Your task to perform on an android device: change the upload size in google photos Image 0: 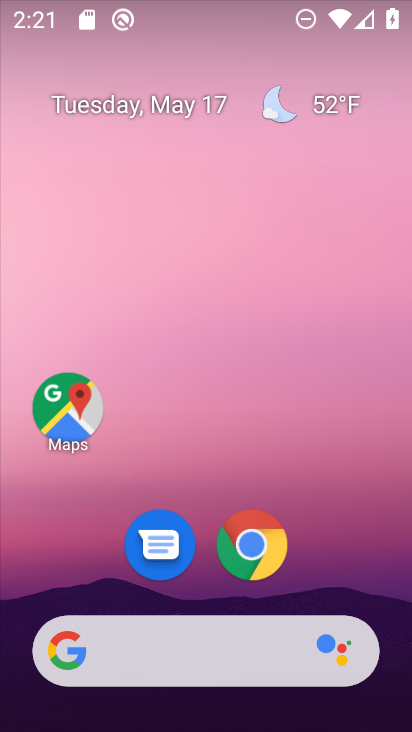
Step 0: drag from (354, 558) to (341, 199)
Your task to perform on an android device: change the upload size in google photos Image 1: 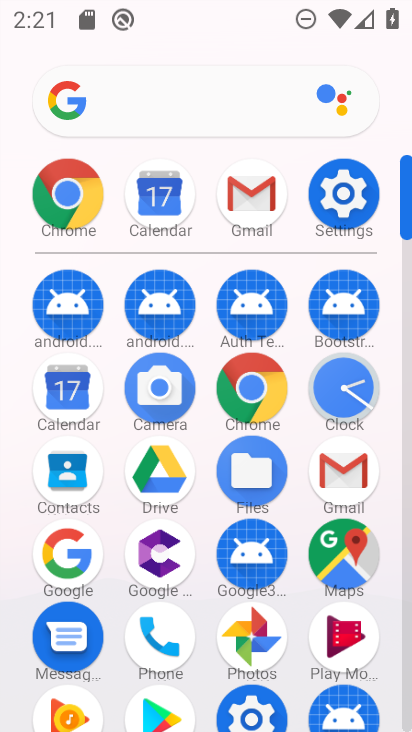
Step 1: click (270, 651)
Your task to perform on an android device: change the upload size in google photos Image 2: 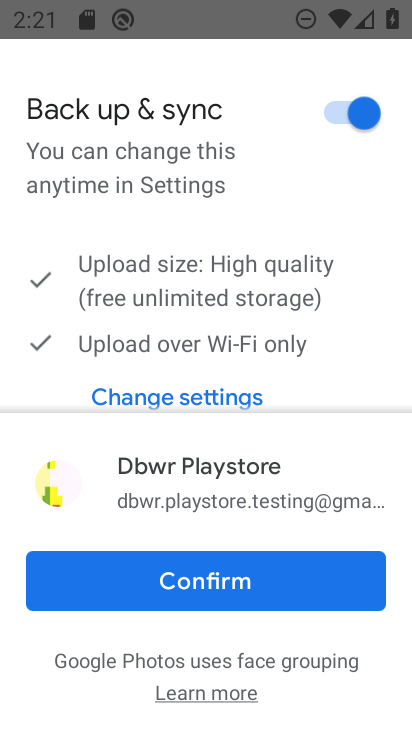
Step 2: click (284, 597)
Your task to perform on an android device: change the upload size in google photos Image 3: 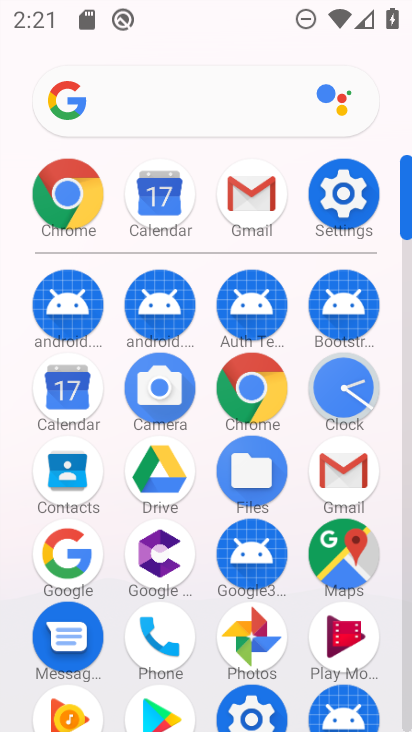
Step 3: click (276, 636)
Your task to perform on an android device: change the upload size in google photos Image 4: 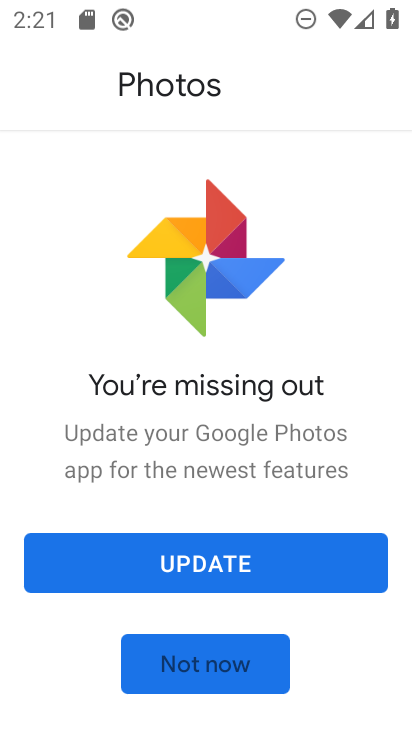
Step 4: click (293, 570)
Your task to perform on an android device: change the upload size in google photos Image 5: 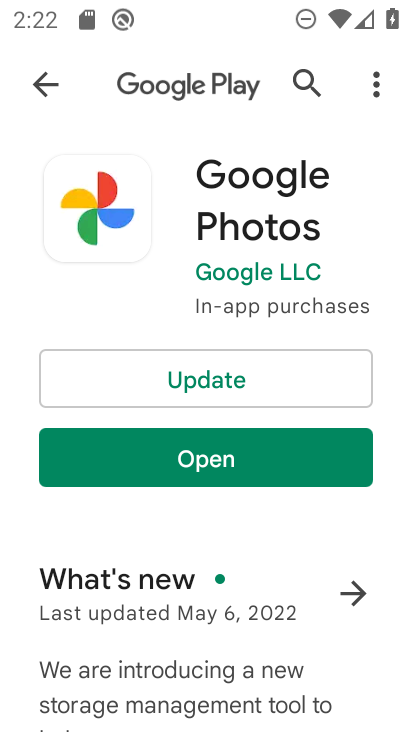
Step 5: click (236, 366)
Your task to perform on an android device: change the upload size in google photos Image 6: 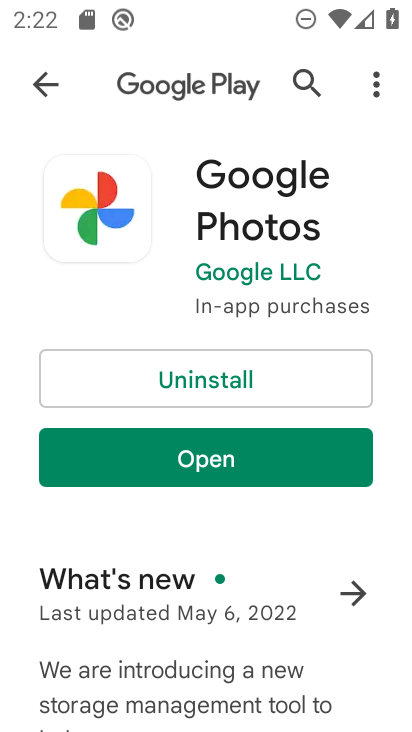
Step 6: click (227, 466)
Your task to perform on an android device: change the upload size in google photos Image 7: 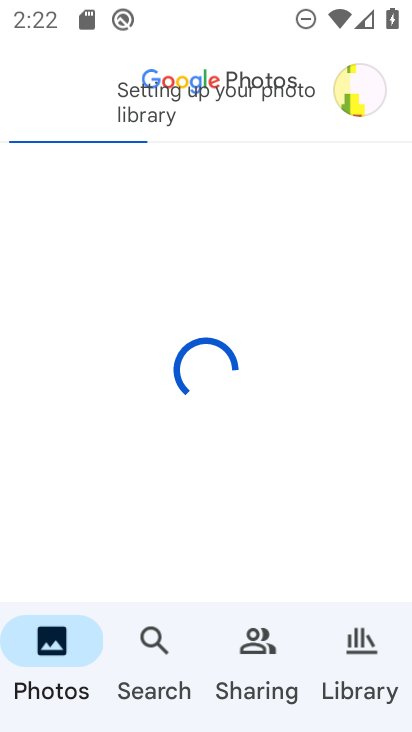
Step 7: click (375, 80)
Your task to perform on an android device: change the upload size in google photos Image 8: 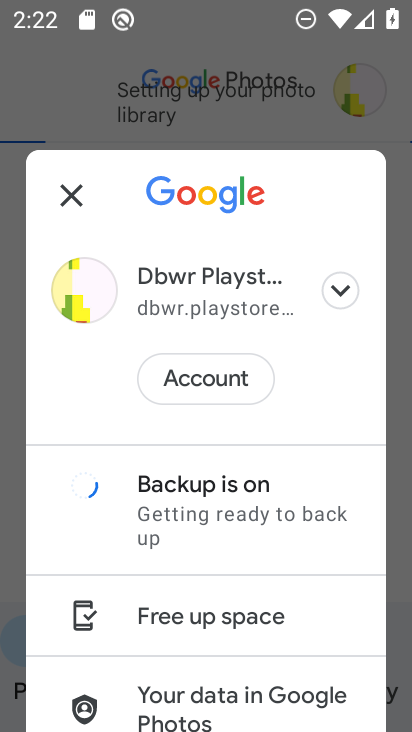
Step 8: drag from (284, 573) to (281, 407)
Your task to perform on an android device: change the upload size in google photos Image 9: 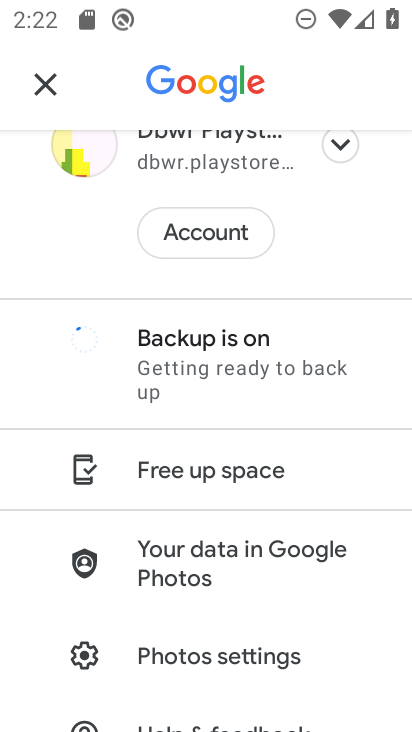
Step 9: click (245, 657)
Your task to perform on an android device: change the upload size in google photos Image 10: 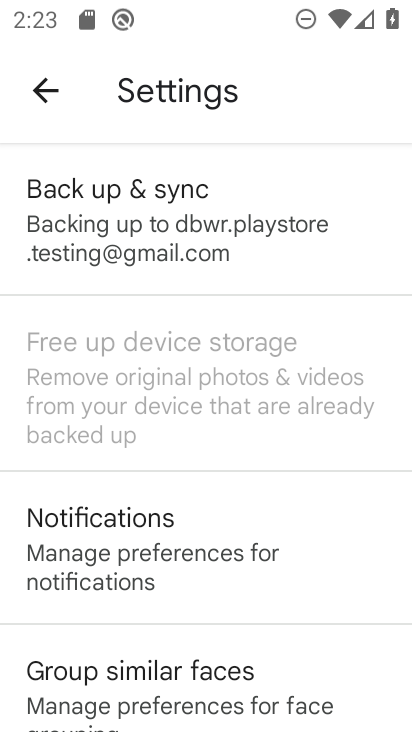
Step 10: click (196, 224)
Your task to perform on an android device: change the upload size in google photos Image 11: 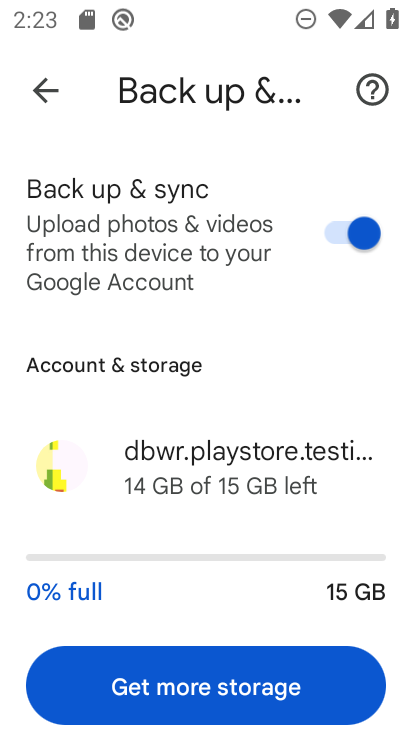
Step 11: drag from (217, 562) to (240, 399)
Your task to perform on an android device: change the upload size in google photos Image 12: 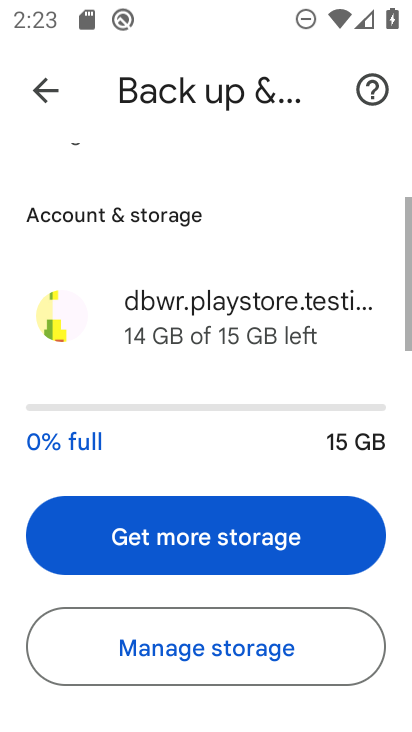
Step 12: drag from (223, 558) to (249, 393)
Your task to perform on an android device: change the upload size in google photos Image 13: 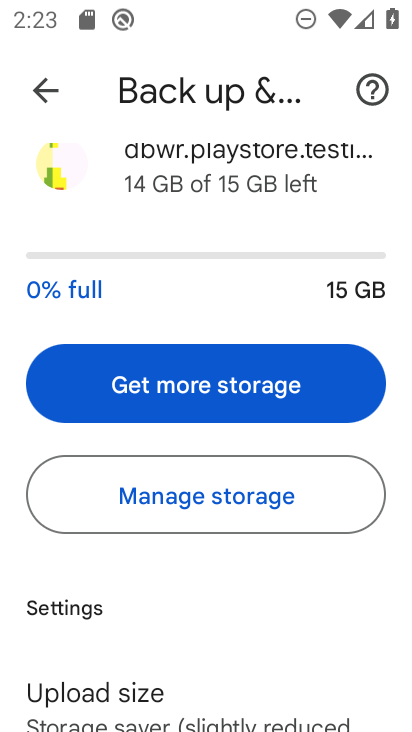
Step 13: drag from (206, 659) to (238, 450)
Your task to perform on an android device: change the upload size in google photos Image 14: 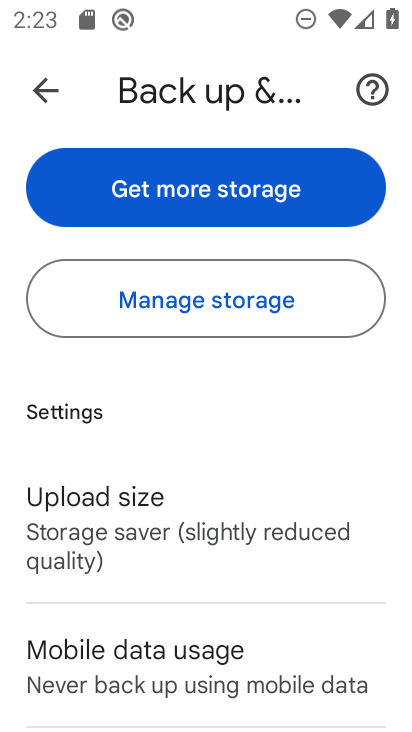
Step 14: click (219, 538)
Your task to perform on an android device: change the upload size in google photos Image 15: 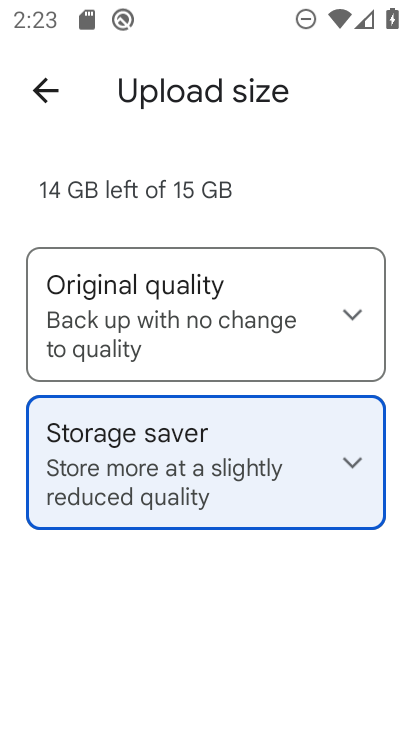
Step 15: click (203, 316)
Your task to perform on an android device: change the upload size in google photos Image 16: 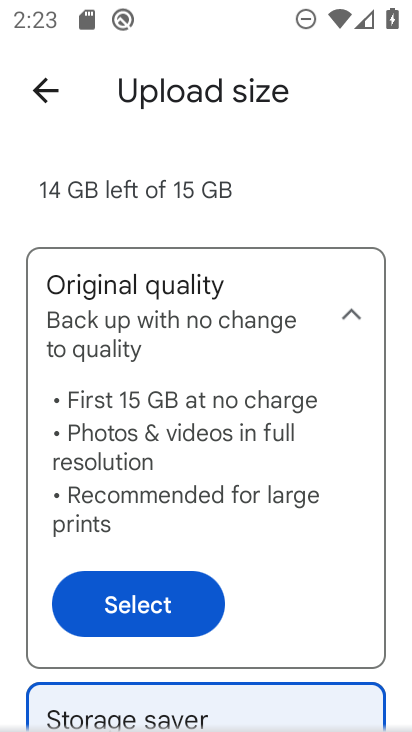
Step 16: click (157, 624)
Your task to perform on an android device: change the upload size in google photos Image 17: 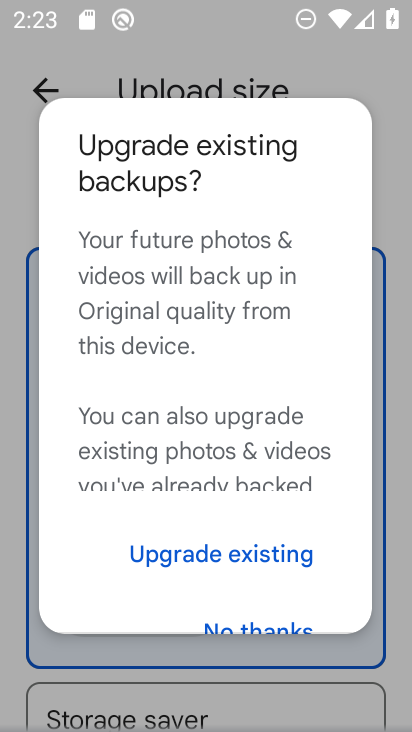
Step 17: task complete